Your task to perform on an android device: toggle priority inbox in the gmail app Image 0: 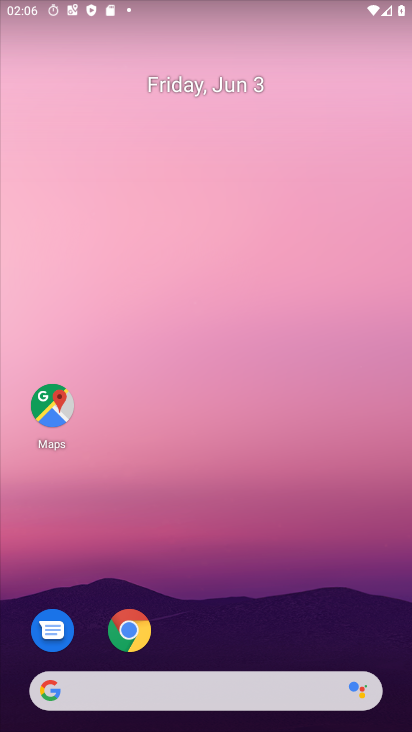
Step 0: click (226, 264)
Your task to perform on an android device: toggle priority inbox in the gmail app Image 1: 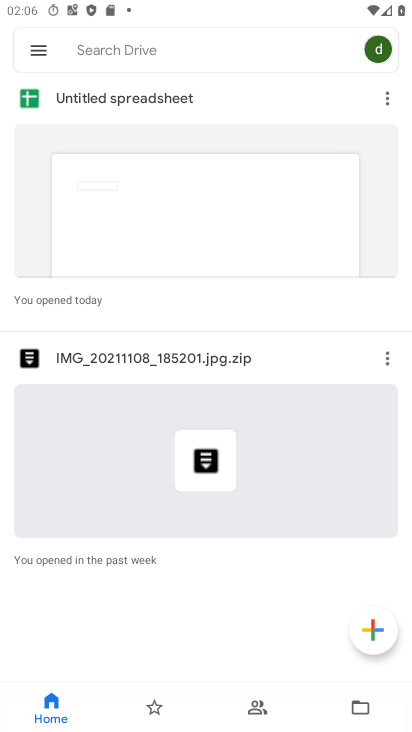
Step 1: press home button
Your task to perform on an android device: toggle priority inbox in the gmail app Image 2: 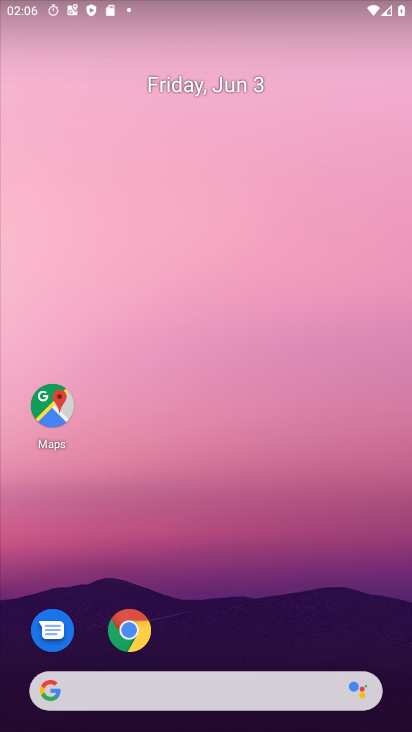
Step 2: drag from (247, 642) to (197, 257)
Your task to perform on an android device: toggle priority inbox in the gmail app Image 3: 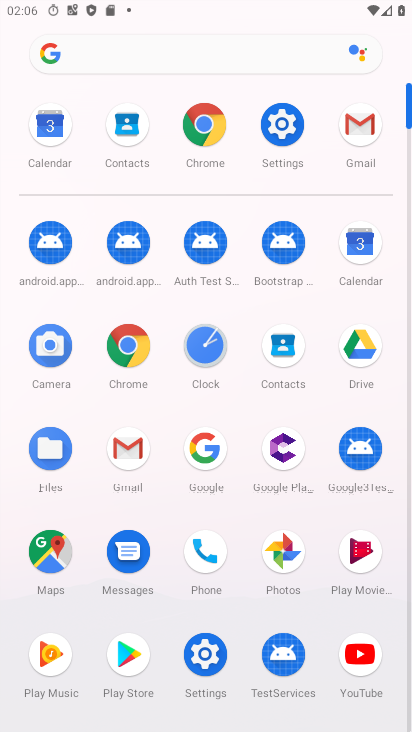
Step 3: click (128, 450)
Your task to perform on an android device: toggle priority inbox in the gmail app Image 4: 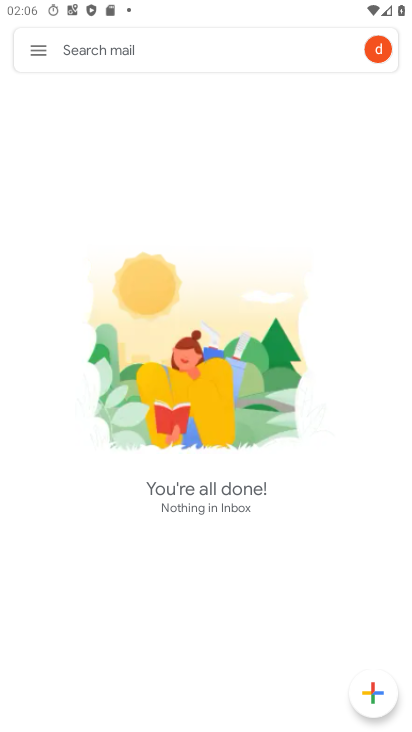
Step 4: click (45, 54)
Your task to perform on an android device: toggle priority inbox in the gmail app Image 5: 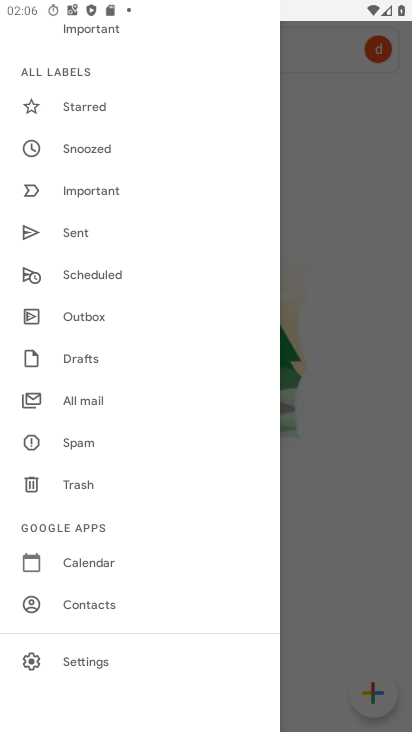
Step 5: click (125, 669)
Your task to perform on an android device: toggle priority inbox in the gmail app Image 6: 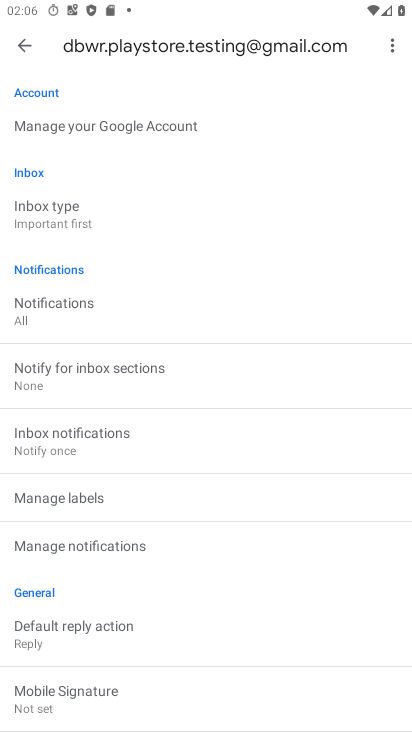
Step 6: click (84, 218)
Your task to perform on an android device: toggle priority inbox in the gmail app Image 7: 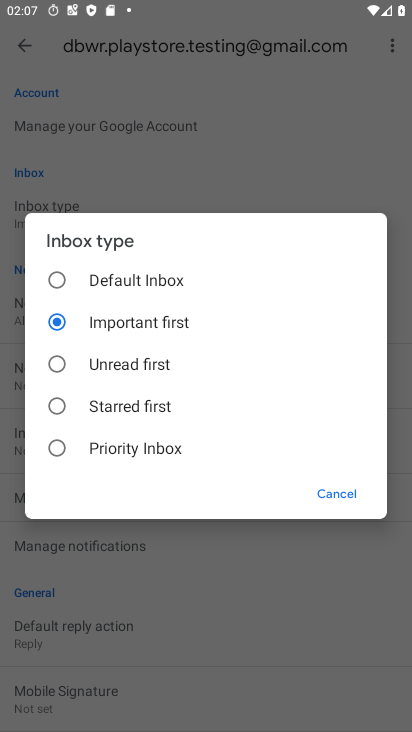
Step 7: click (128, 451)
Your task to perform on an android device: toggle priority inbox in the gmail app Image 8: 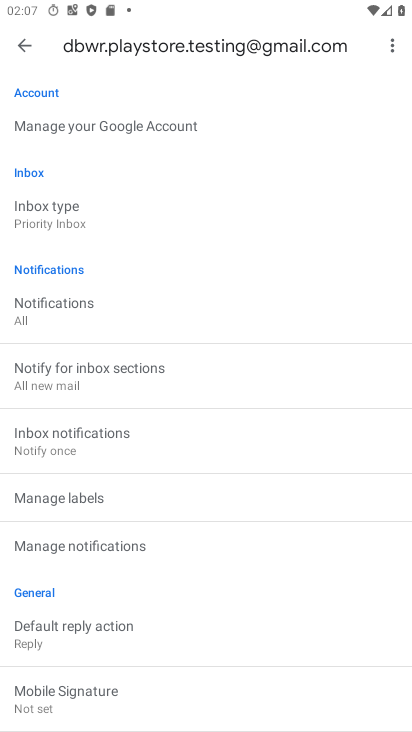
Step 8: task complete